Your task to perform on an android device: open a new tab in the chrome app Image 0: 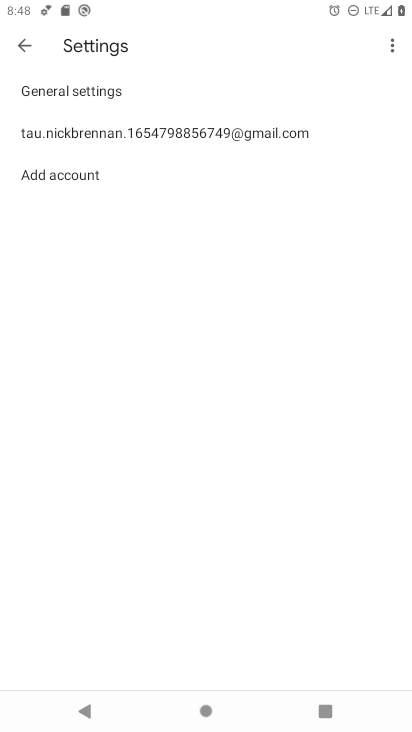
Step 0: press home button
Your task to perform on an android device: open a new tab in the chrome app Image 1: 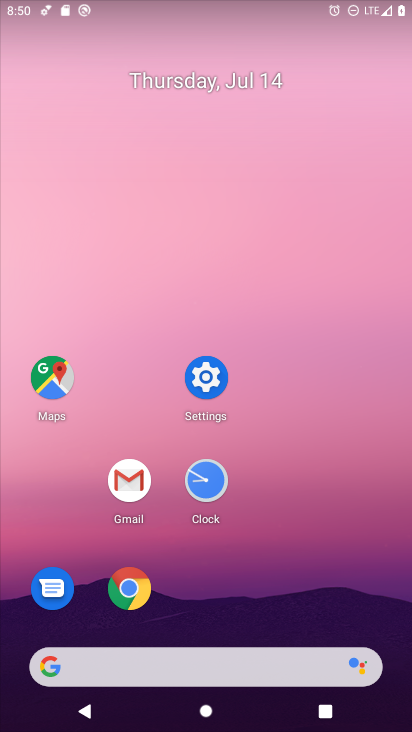
Step 1: click (127, 590)
Your task to perform on an android device: open a new tab in the chrome app Image 2: 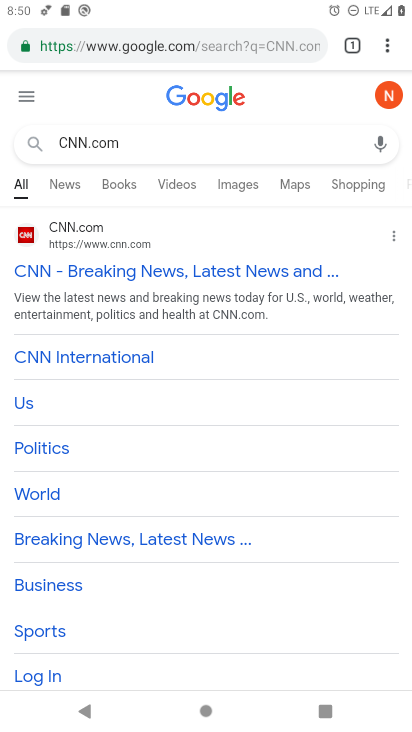
Step 2: click (383, 47)
Your task to perform on an android device: open a new tab in the chrome app Image 3: 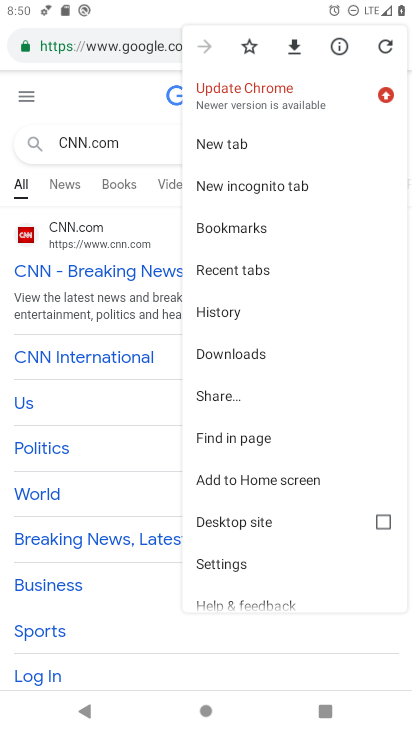
Step 3: click (233, 148)
Your task to perform on an android device: open a new tab in the chrome app Image 4: 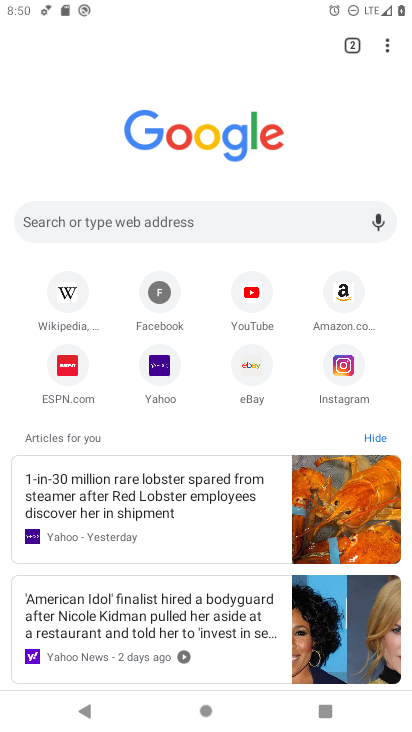
Step 4: task complete